Your task to perform on an android device: toggle airplane mode Image 0: 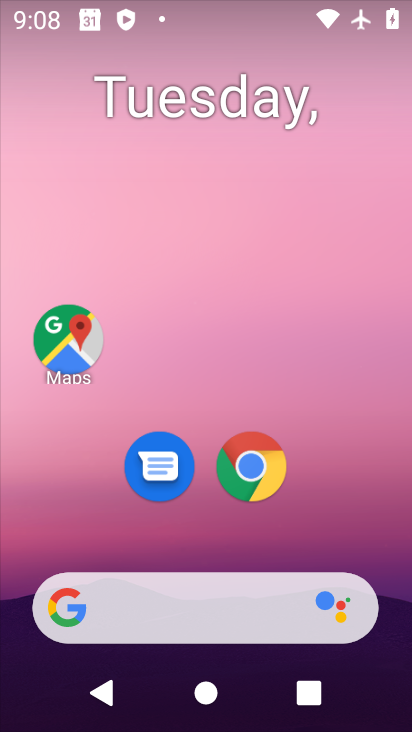
Step 0: drag from (290, 6) to (358, 450)
Your task to perform on an android device: toggle airplane mode Image 1: 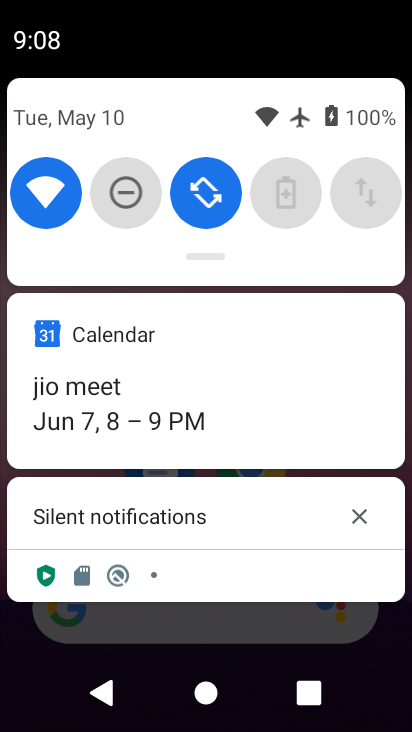
Step 1: drag from (344, 255) to (343, 545)
Your task to perform on an android device: toggle airplane mode Image 2: 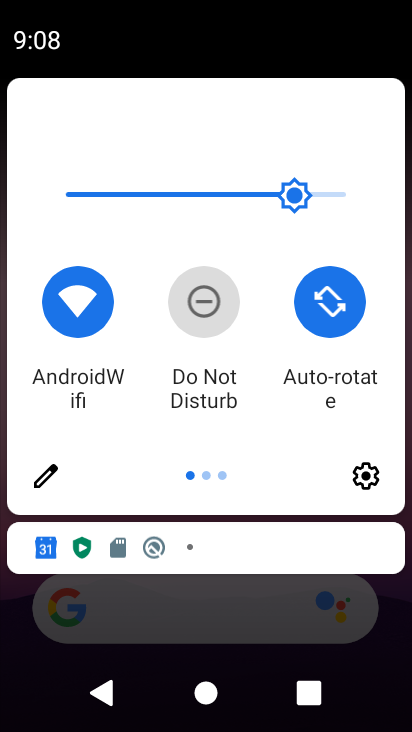
Step 2: drag from (369, 351) to (13, 316)
Your task to perform on an android device: toggle airplane mode Image 3: 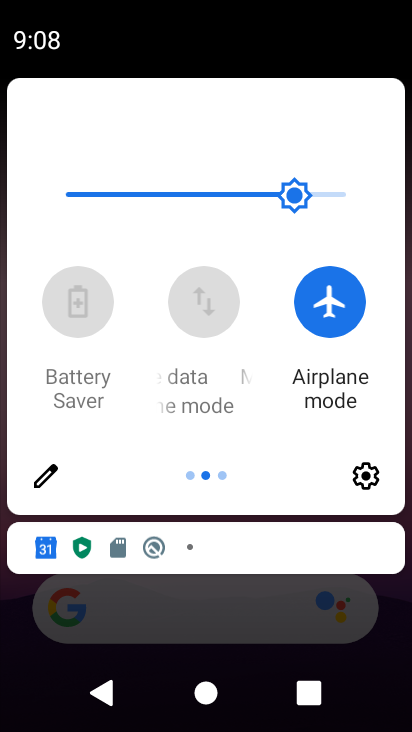
Step 3: click (344, 303)
Your task to perform on an android device: toggle airplane mode Image 4: 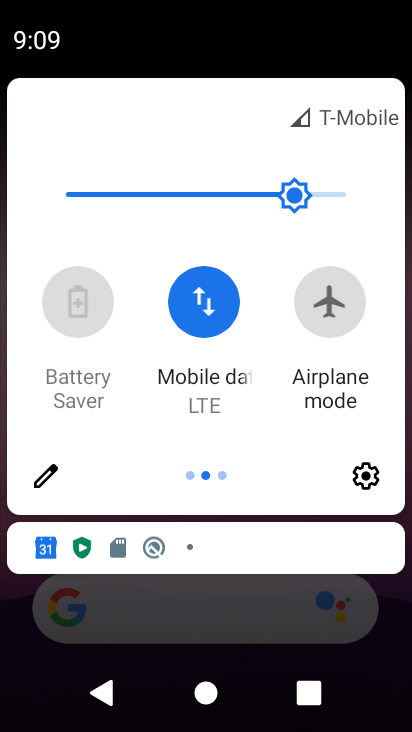
Step 4: task complete